Your task to perform on an android device: set the stopwatch Image 0: 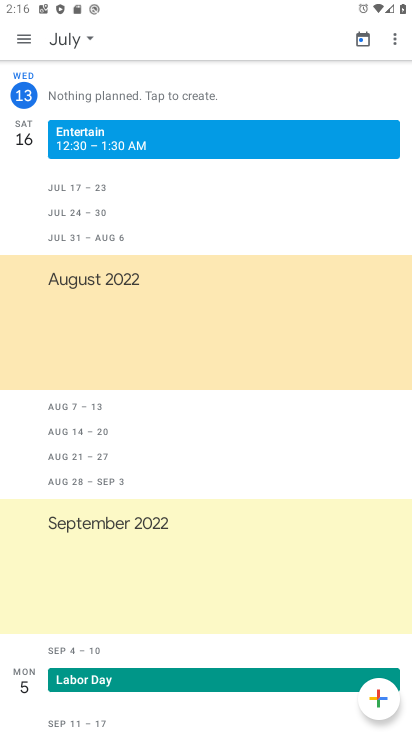
Step 0: press back button
Your task to perform on an android device: set the stopwatch Image 1: 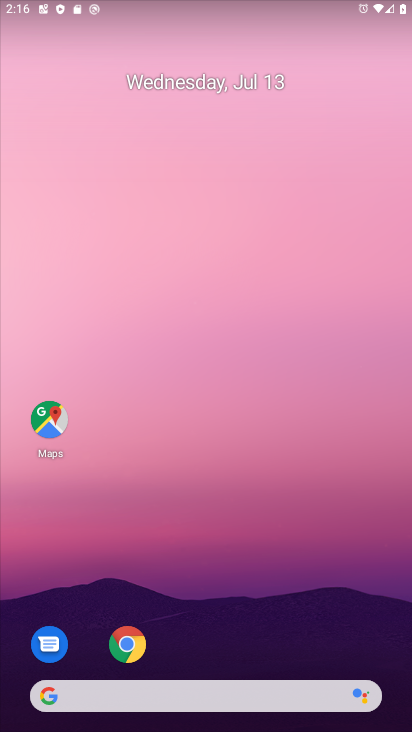
Step 1: drag from (208, 563) to (248, 4)
Your task to perform on an android device: set the stopwatch Image 2: 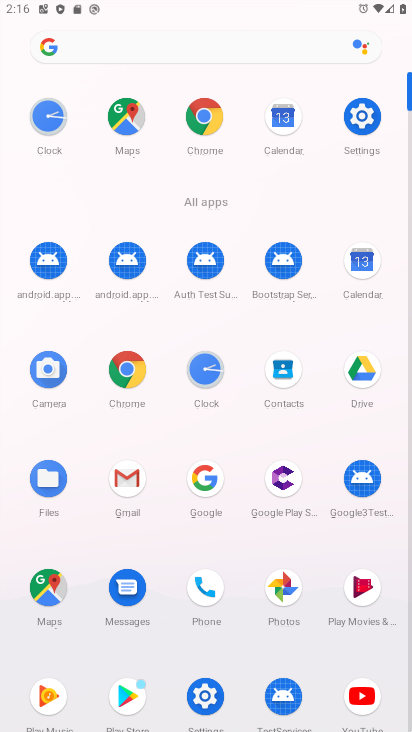
Step 2: click (207, 359)
Your task to perform on an android device: set the stopwatch Image 3: 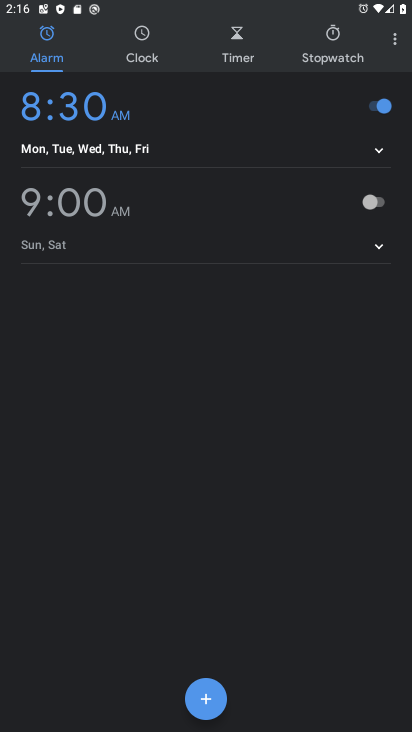
Step 3: click (338, 40)
Your task to perform on an android device: set the stopwatch Image 4: 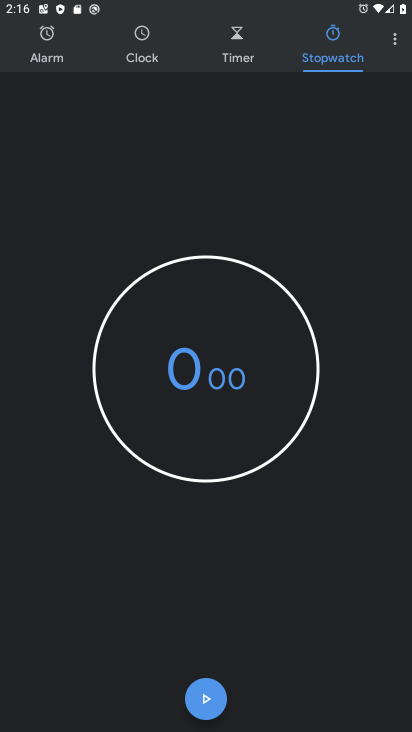
Step 4: click (224, 372)
Your task to perform on an android device: set the stopwatch Image 5: 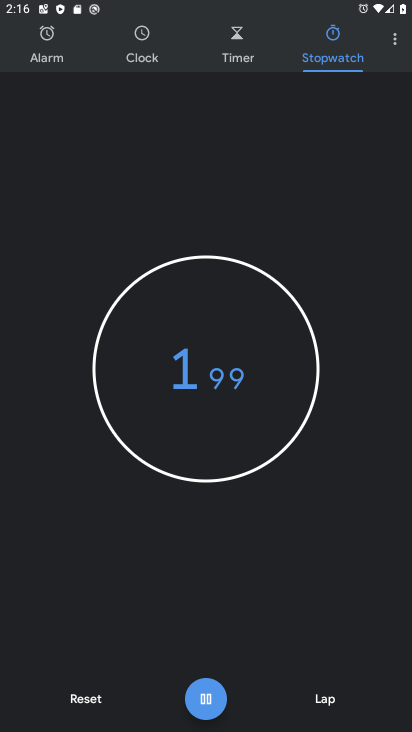
Step 5: click (223, 373)
Your task to perform on an android device: set the stopwatch Image 6: 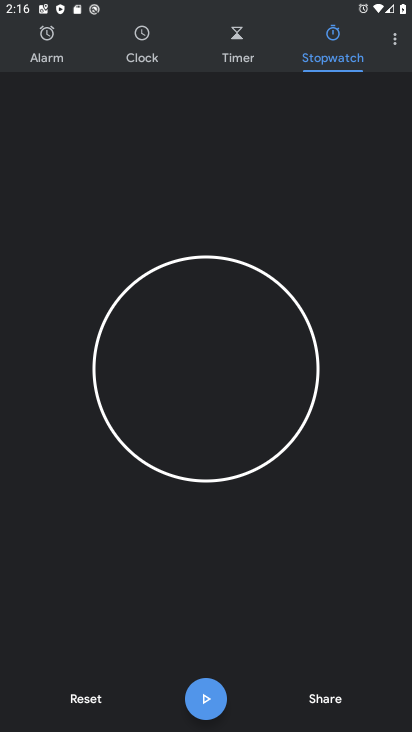
Step 6: task complete